Your task to perform on an android device: Open sound settings Image 0: 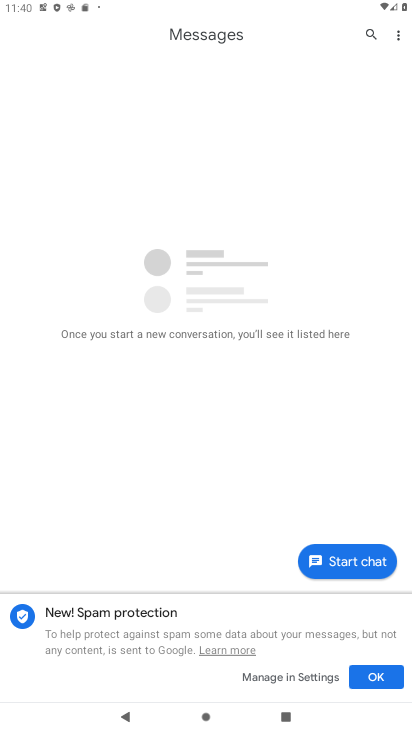
Step 0: task complete